Your task to perform on an android device: Add duracell triple a to the cart on amazon.com Image 0: 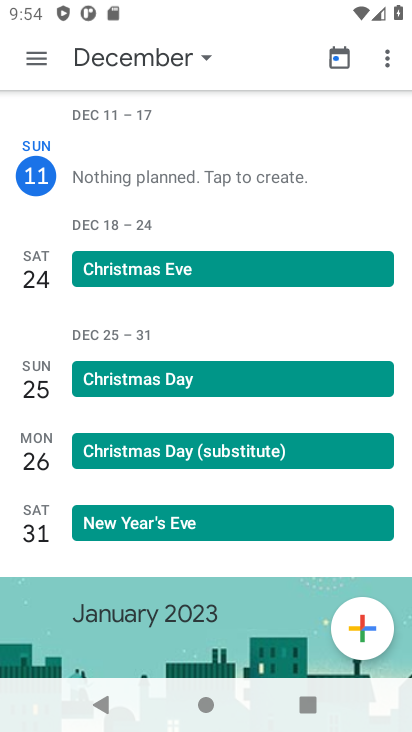
Step 0: press home button
Your task to perform on an android device: Add duracell triple a to the cart on amazon.com Image 1: 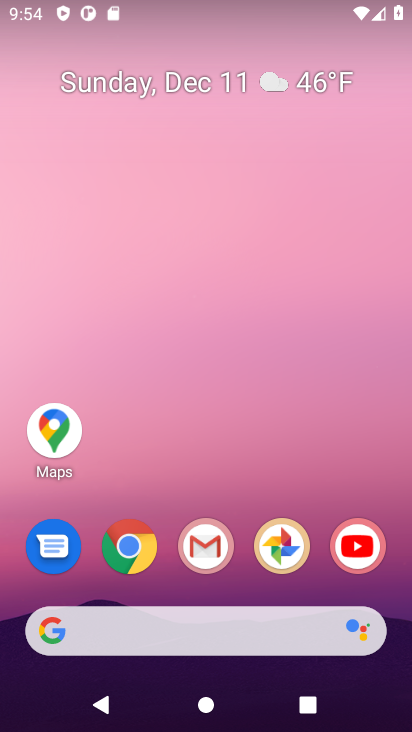
Step 1: click (130, 546)
Your task to perform on an android device: Add duracell triple a to the cart on amazon.com Image 2: 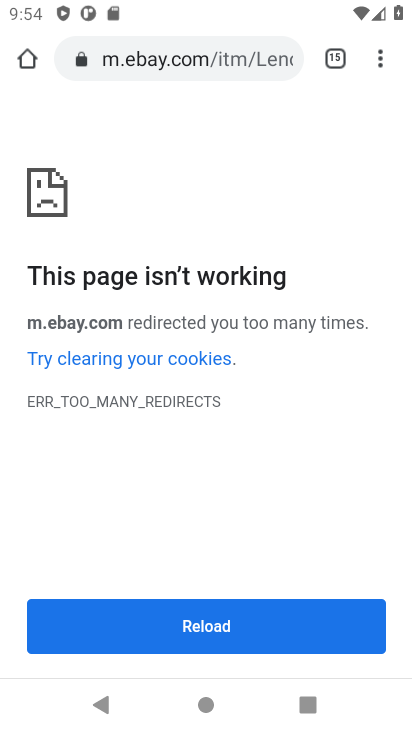
Step 2: click (182, 66)
Your task to perform on an android device: Add duracell triple a to the cart on amazon.com Image 3: 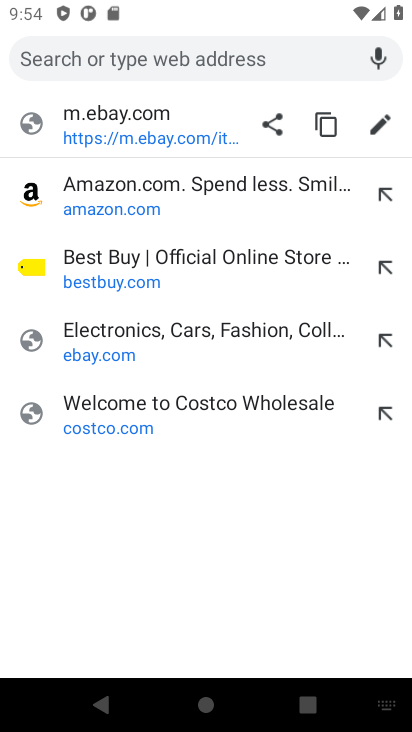
Step 3: click (103, 196)
Your task to perform on an android device: Add duracell triple a to the cart on amazon.com Image 4: 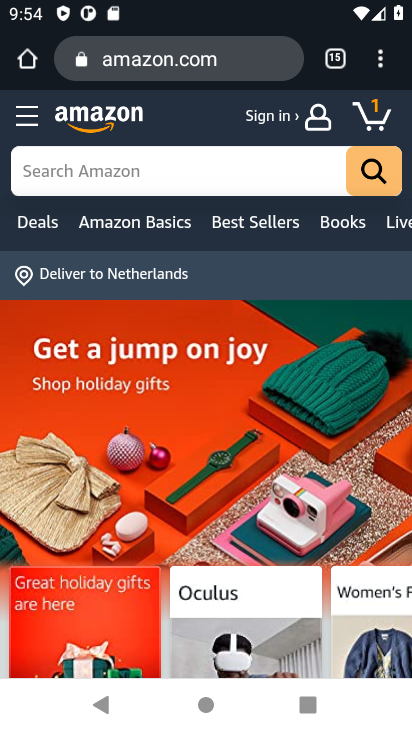
Step 4: click (135, 171)
Your task to perform on an android device: Add duracell triple a to the cart on amazon.com Image 5: 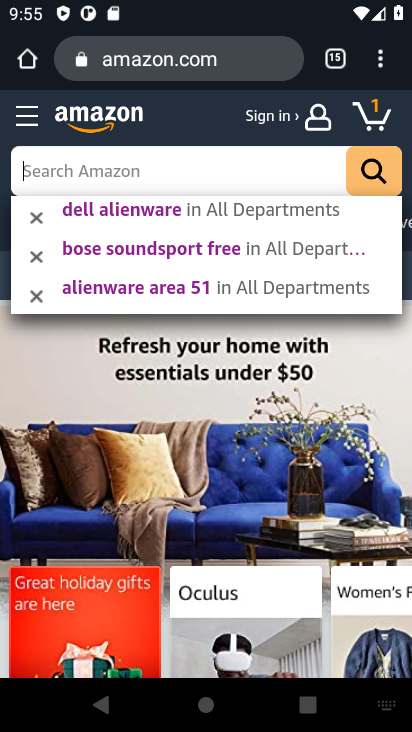
Step 5: type "duracell triple a"
Your task to perform on an android device: Add duracell triple a to the cart on amazon.com Image 6: 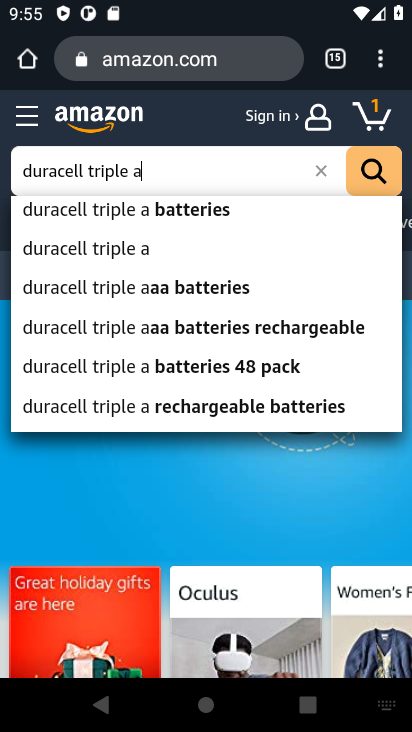
Step 6: click (110, 211)
Your task to perform on an android device: Add duracell triple a to the cart on amazon.com Image 7: 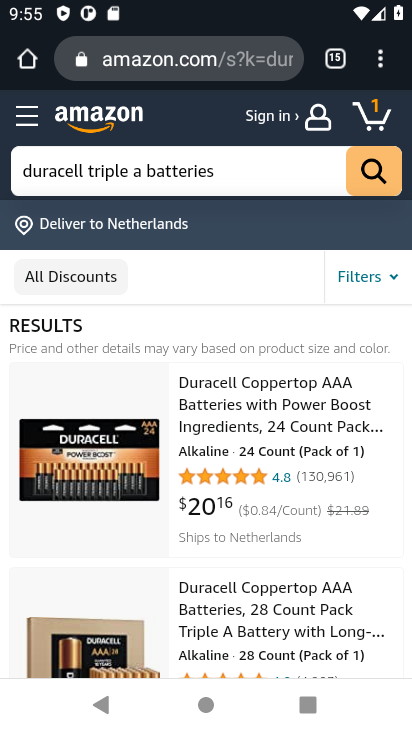
Step 7: drag from (149, 492) to (138, 294)
Your task to perform on an android device: Add duracell triple a to the cart on amazon.com Image 8: 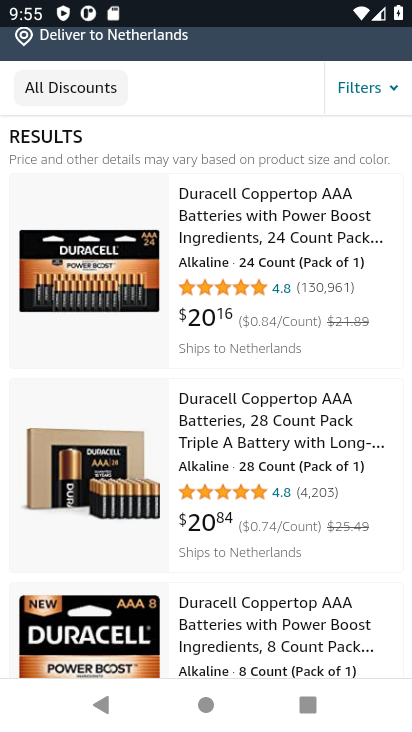
Step 8: click (263, 246)
Your task to perform on an android device: Add duracell triple a to the cart on amazon.com Image 9: 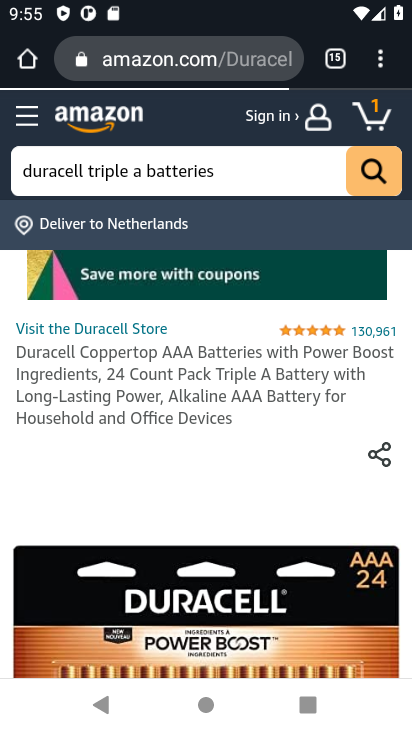
Step 9: drag from (219, 419) to (195, 78)
Your task to perform on an android device: Add duracell triple a to the cart on amazon.com Image 10: 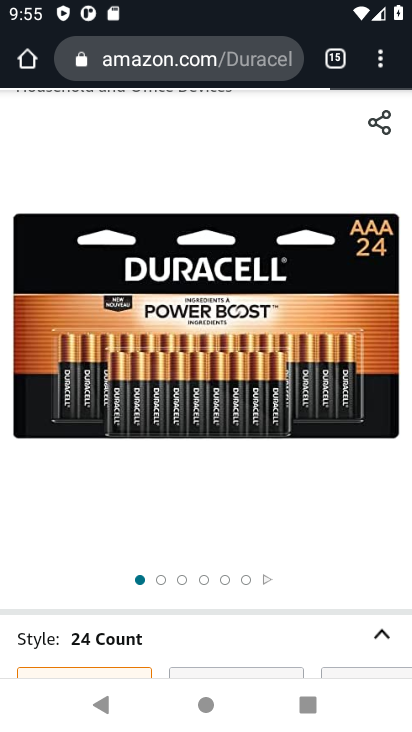
Step 10: drag from (169, 481) to (141, 153)
Your task to perform on an android device: Add duracell triple a to the cart on amazon.com Image 11: 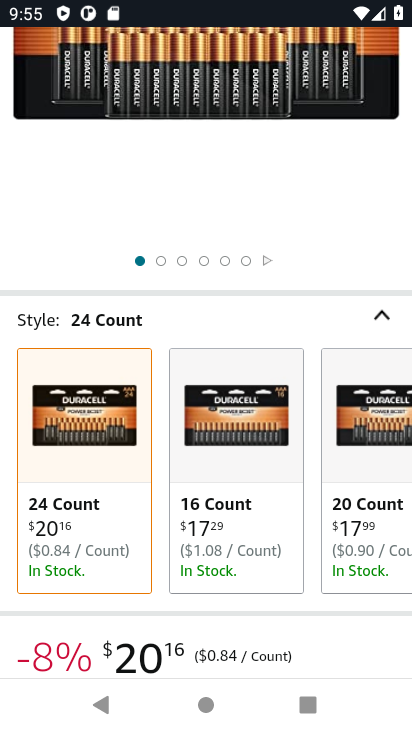
Step 11: drag from (182, 574) to (166, 258)
Your task to perform on an android device: Add duracell triple a to the cart on amazon.com Image 12: 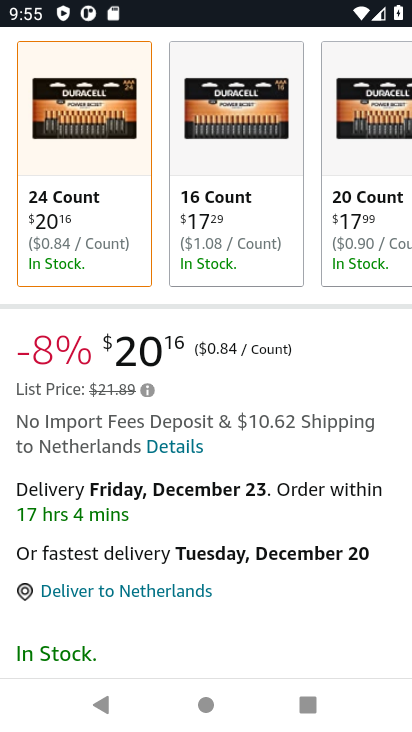
Step 12: drag from (186, 530) to (168, 255)
Your task to perform on an android device: Add duracell triple a to the cart on amazon.com Image 13: 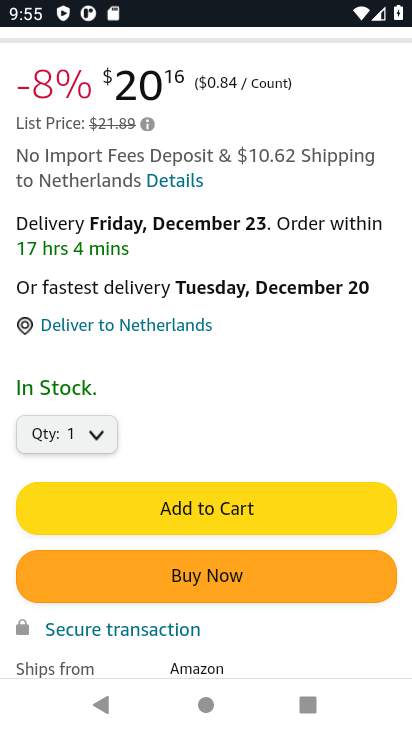
Step 13: click (193, 507)
Your task to perform on an android device: Add duracell triple a to the cart on amazon.com Image 14: 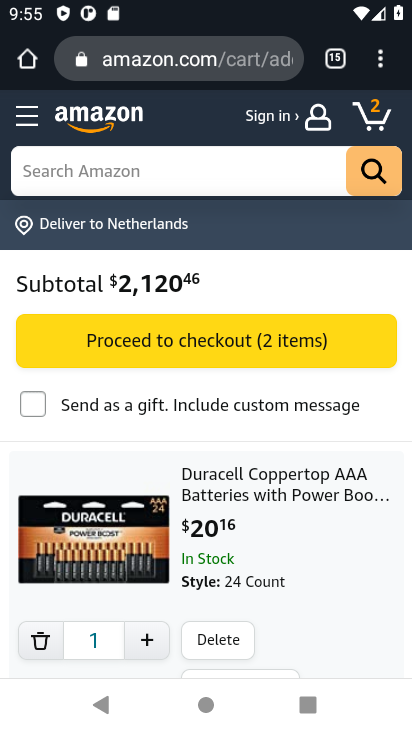
Step 14: task complete